Your task to perform on an android device: toggle priority inbox in the gmail app Image 0: 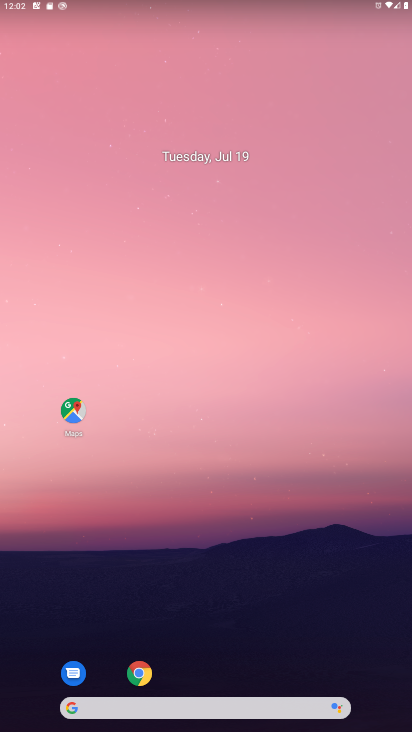
Step 0: drag from (166, 610) to (127, 277)
Your task to perform on an android device: toggle priority inbox in the gmail app Image 1: 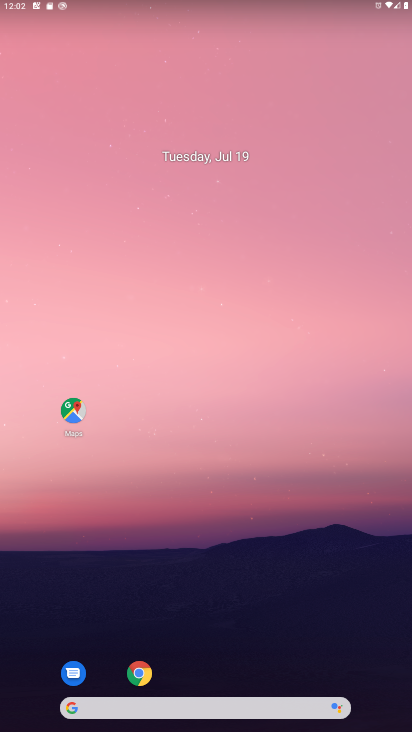
Step 1: drag from (195, 660) to (230, 292)
Your task to perform on an android device: toggle priority inbox in the gmail app Image 2: 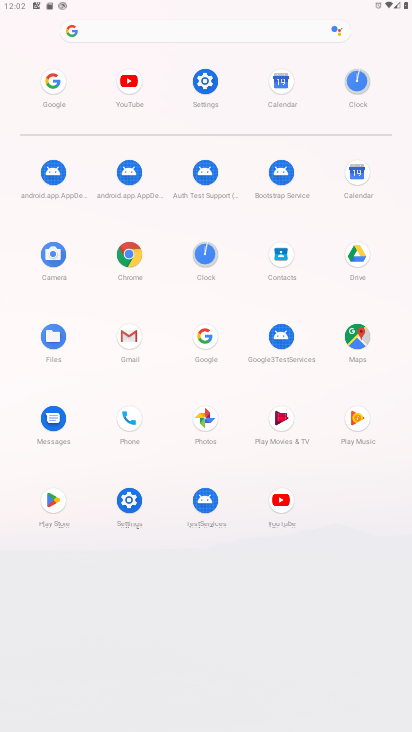
Step 2: click (114, 349)
Your task to perform on an android device: toggle priority inbox in the gmail app Image 3: 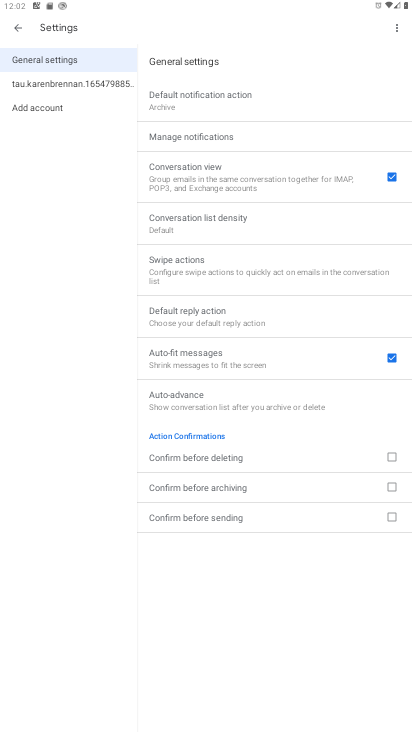
Step 3: click (52, 87)
Your task to perform on an android device: toggle priority inbox in the gmail app Image 4: 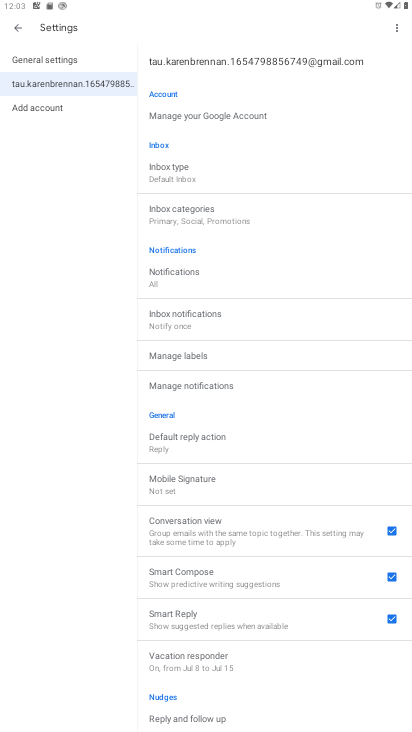
Step 4: click (177, 171)
Your task to perform on an android device: toggle priority inbox in the gmail app Image 5: 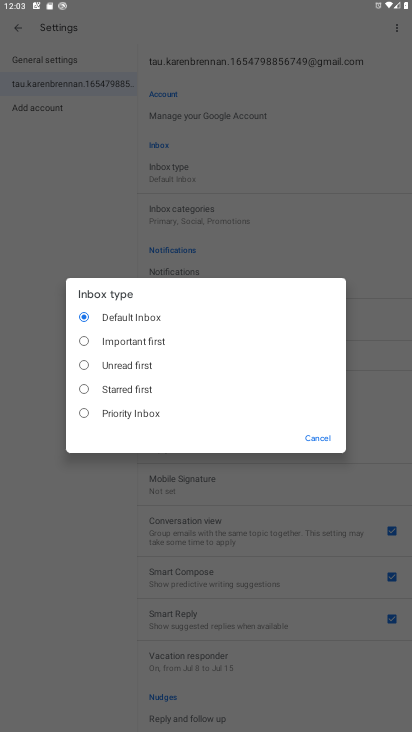
Step 5: click (131, 413)
Your task to perform on an android device: toggle priority inbox in the gmail app Image 6: 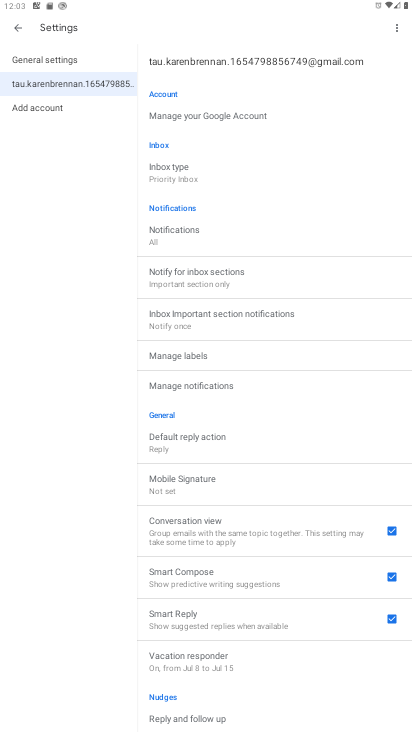
Step 6: task complete